Your task to perform on an android device: turn off notifications settings in the gmail app Image 0: 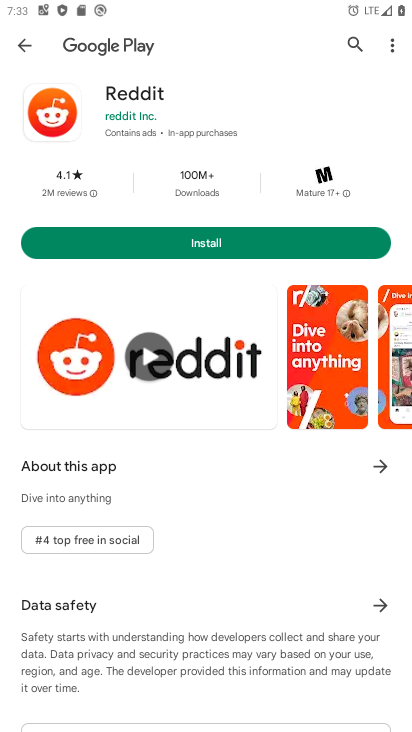
Step 0: press home button
Your task to perform on an android device: turn off notifications settings in the gmail app Image 1: 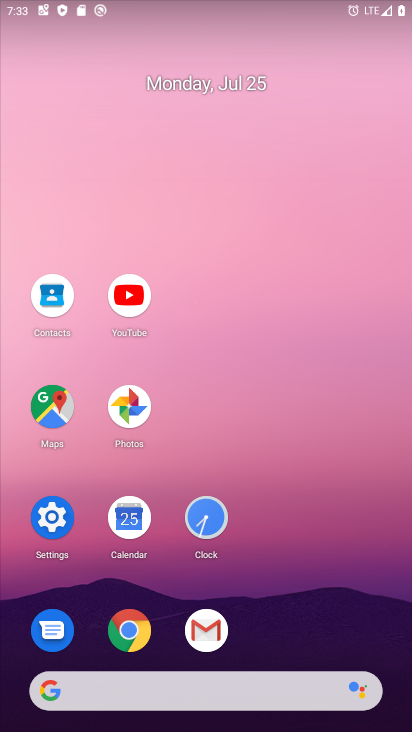
Step 1: click (206, 639)
Your task to perform on an android device: turn off notifications settings in the gmail app Image 2: 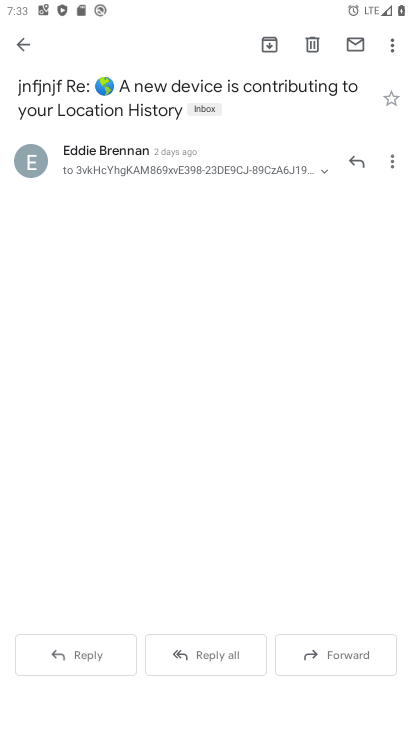
Step 2: click (27, 46)
Your task to perform on an android device: turn off notifications settings in the gmail app Image 3: 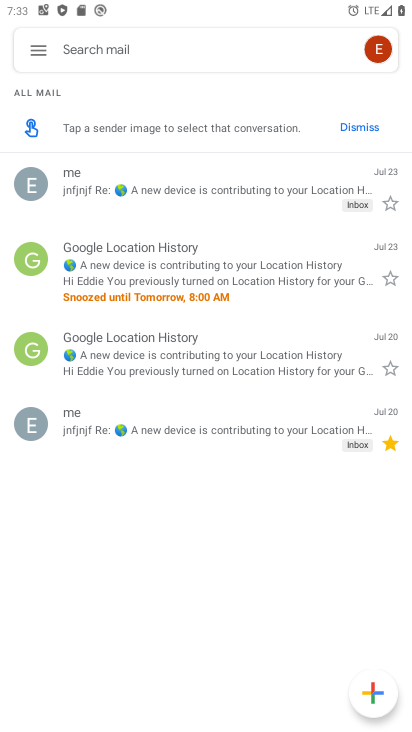
Step 3: click (38, 49)
Your task to perform on an android device: turn off notifications settings in the gmail app Image 4: 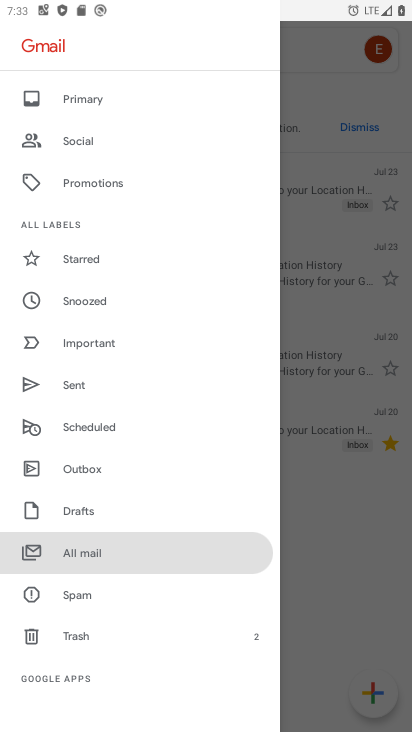
Step 4: drag from (136, 634) to (130, 174)
Your task to perform on an android device: turn off notifications settings in the gmail app Image 5: 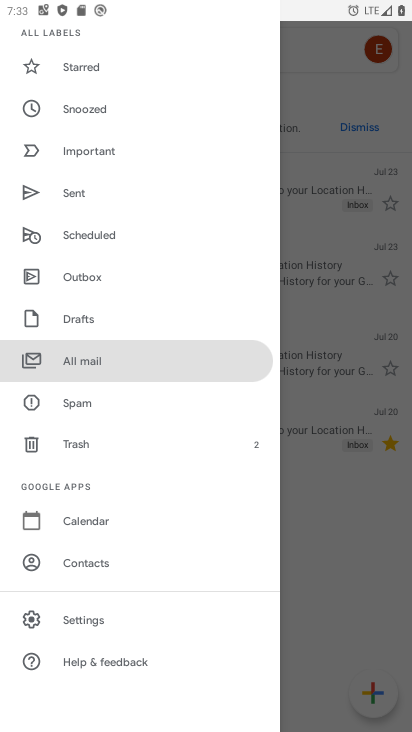
Step 5: click (81, 616)
Your task to perform on an android device: turn off notifications settings in the gmail app Image 6: 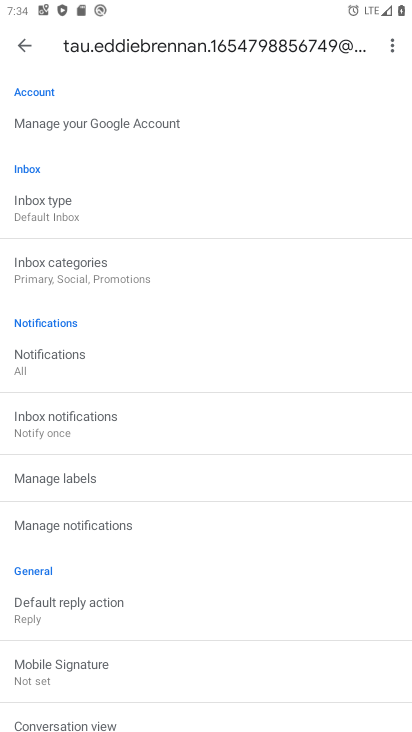
Step 6: click (21, 47)
Your task to perform on an android device: turn off notifications settings in the gmail app Image 7: 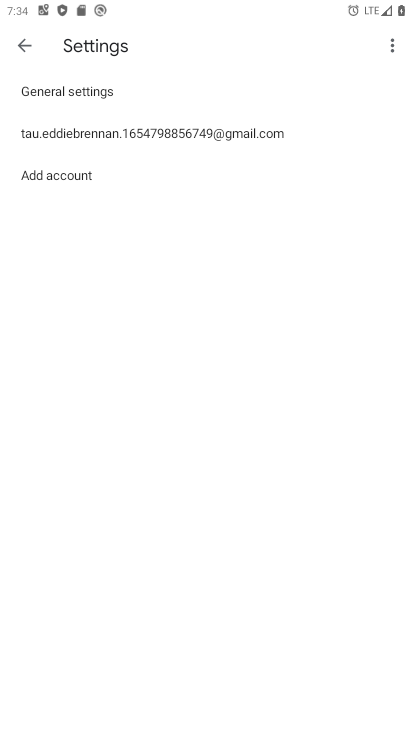
Step 7: click (90, 92)
Your task to perform on an android device: turn off notifications settings in the gmail app Image 8: 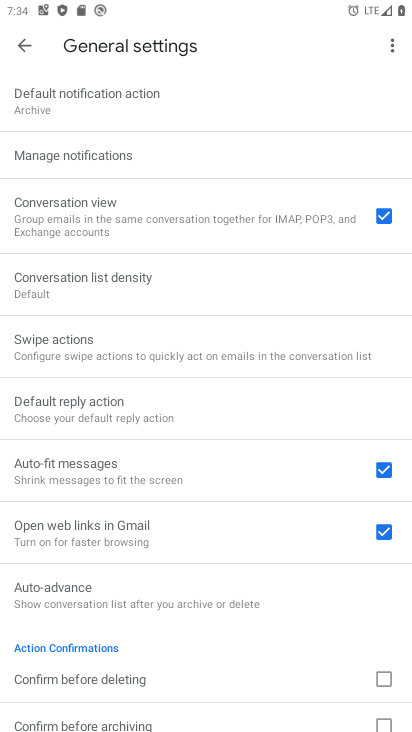
Step 8: click (78, 155)
Your task to perform on an android device: turn off notifications settings in the gmail app Image 9: 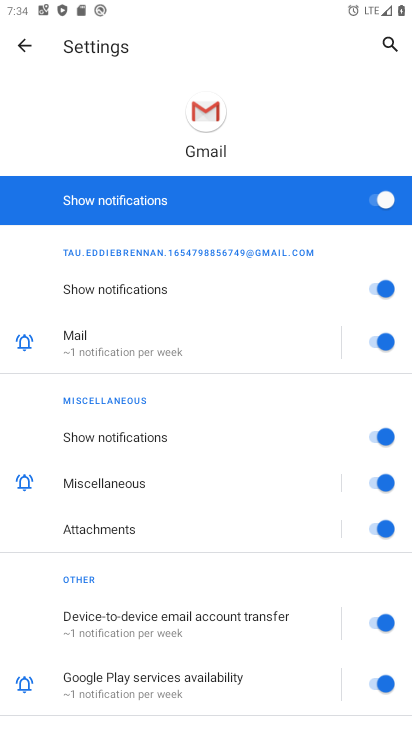
Step 9: click (380, 198)
Your task to perform on an android device: turn off notifications settings in the gmail app Image 10: 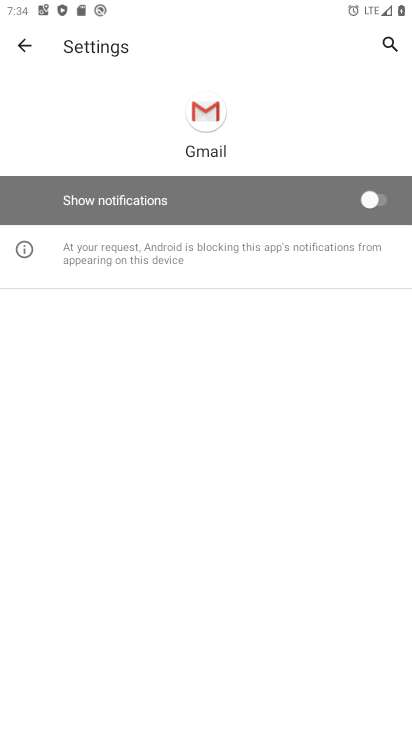
Step 10: task complete